Your task to perform on an android device: turn notification dots off Image 0: 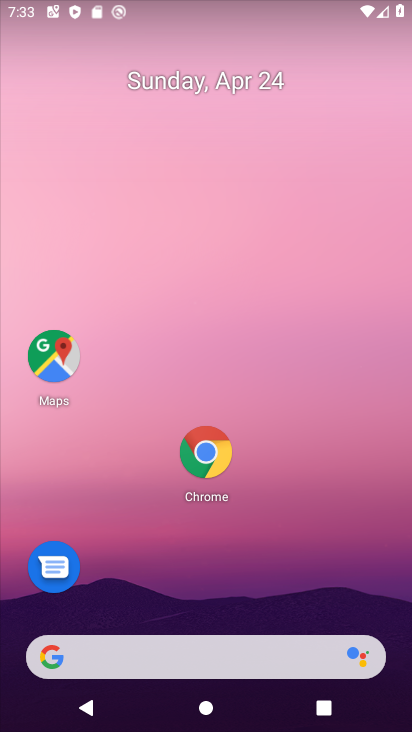
Step 0: drag from (333, 510) to (400, 74)
Your task to perform on an android device: turn notification dots off Image 1: 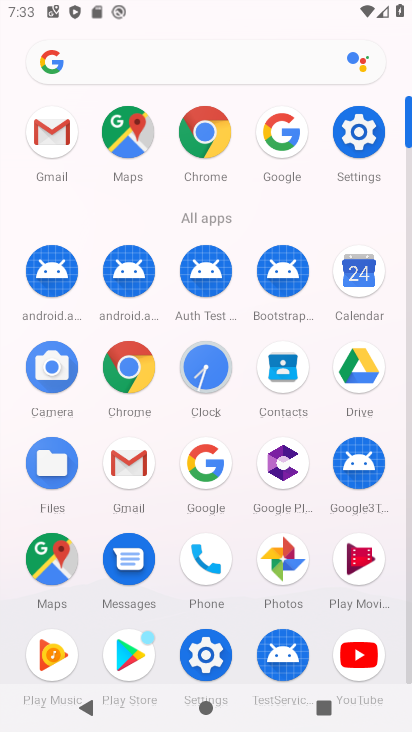
Step 1: click (363, 132)
Your task to perform on an android device: turn notification dots off Image 2: 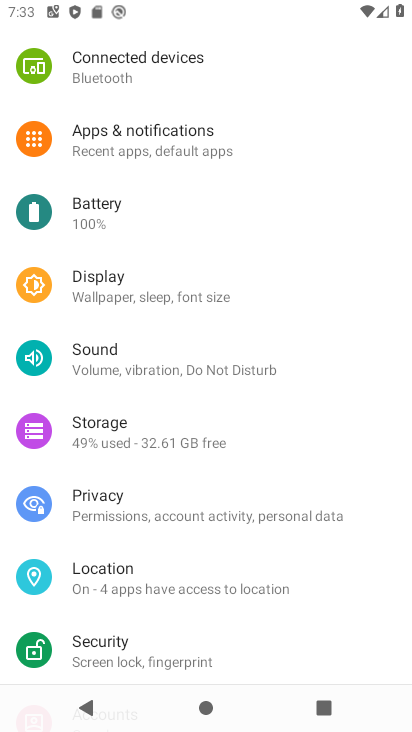
Step 2: click (142, 141)
Your task to perform on an android device: turn notification dots off Image 3: 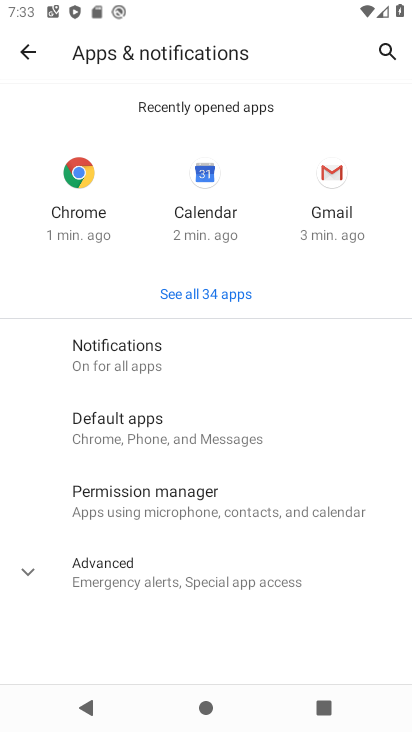
Step 3: click (128, 354)
Your task to perform on an android device: turn notification dots off Image 4: 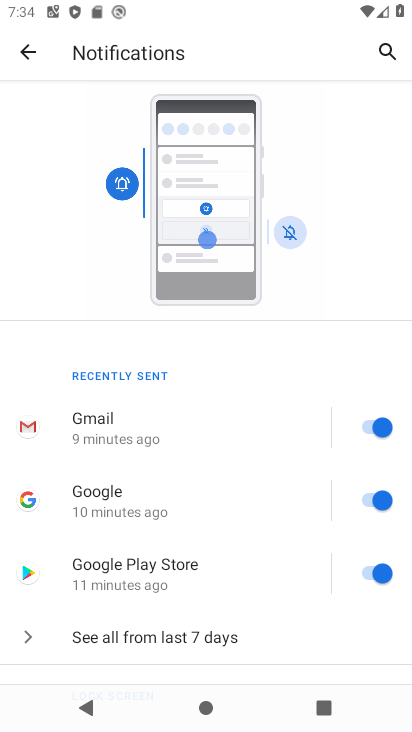
Step 4: drag from (177, 568) to (272, 234)
Your task to perform on an android device: turn notification dots off Image 5: 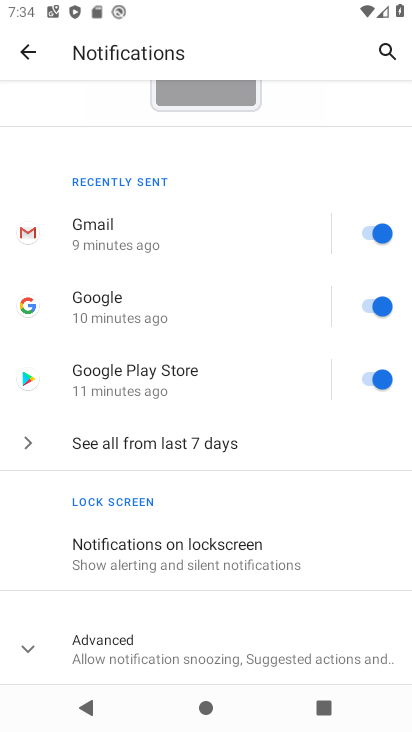
Step 5: drag from (230, 575) to (308, 207)
Your task to perform on an android device: turn notification dots off Image 6: 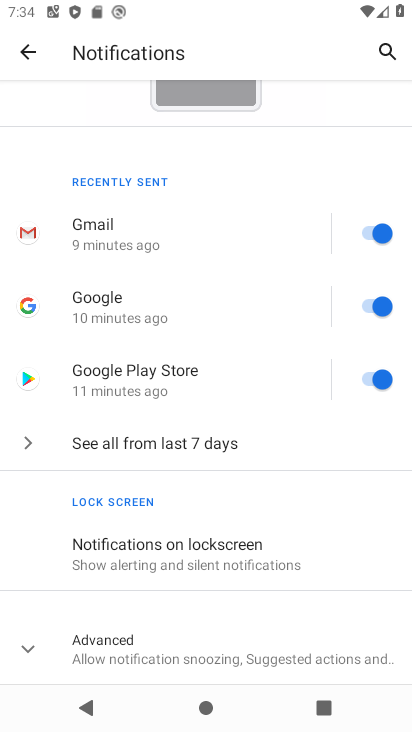
Step 6: click (135, 650)
Your task to perform on an android device: turn notification dots off Image 7: 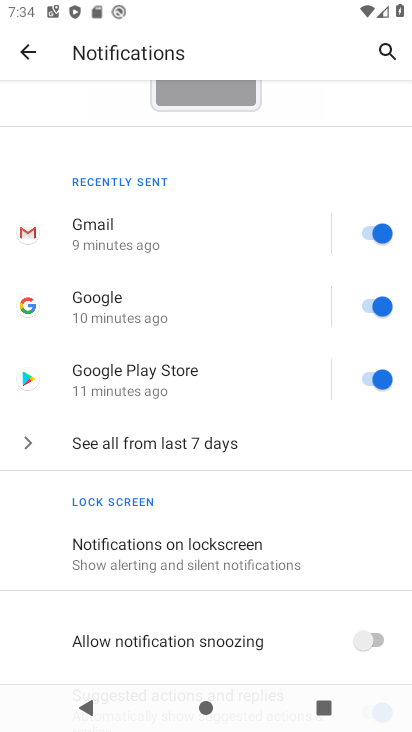
Step 7: drag from (143, 649) to (237, 293)
Your task to perform on an android device: turn notification dots off Image 8: 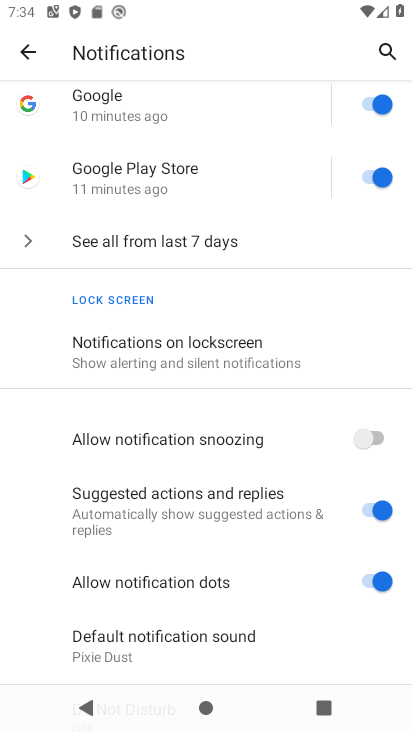
Step 8: drag from (160, 587) to (146, 146)
Your task to perform on an android device: turn notification dots off Image 9: 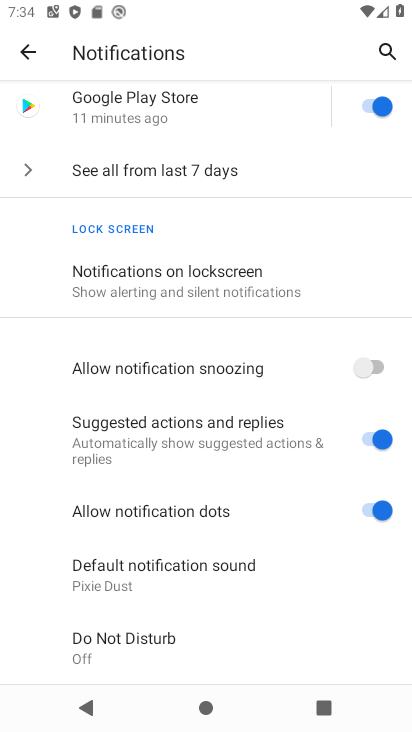
Step 9: drag from (243, 554) to (330, 271)
Your task to perform on an android device: turn notification dots off Image 10: 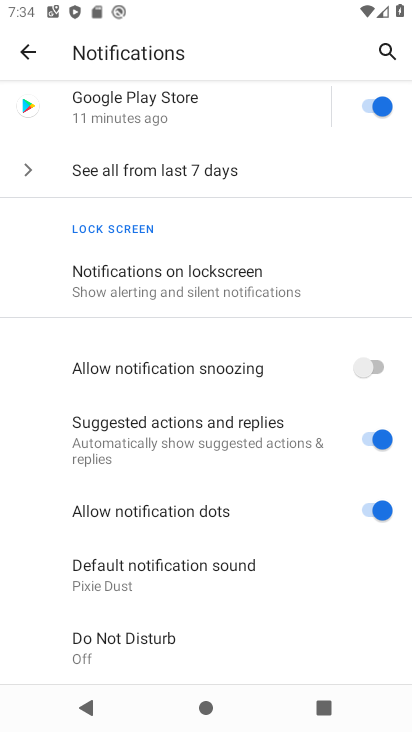
Step 10: click (371, 513)
Your task to perform on an android device: turn notification dots off Image 11: 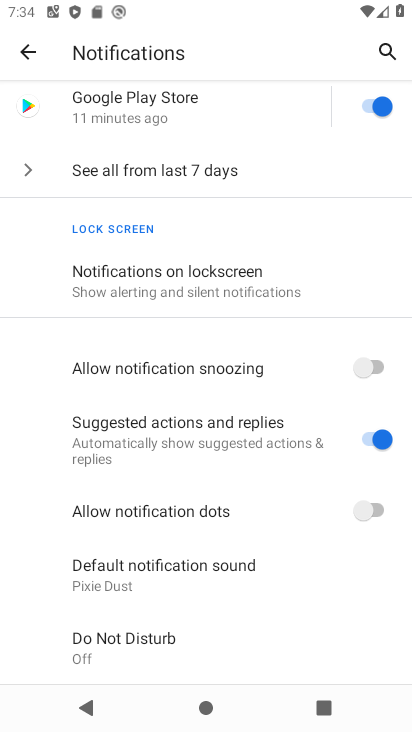
Step 11: task complete